Your task to perform on an android device: What's the weather? Image 0: 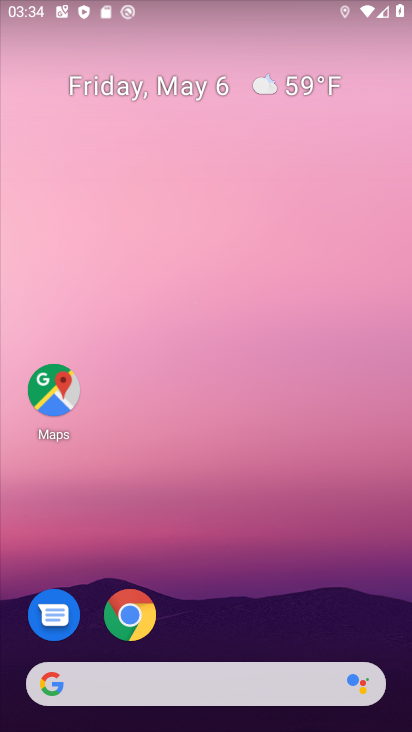
Step 0: drag from (324, 588) to (79, 60)
Your task to perform on an android device: What's the weather? Image 1: 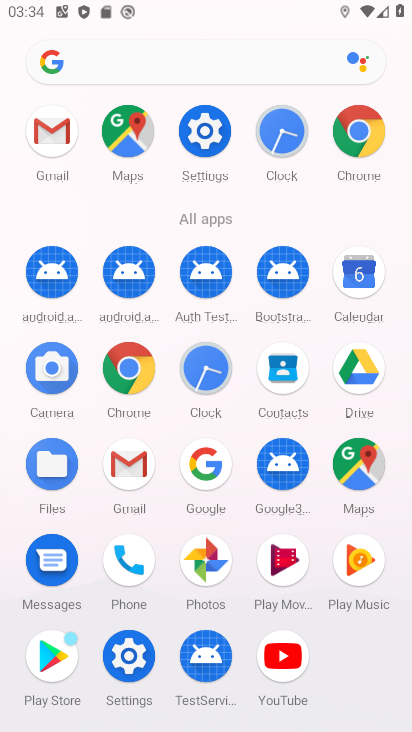
Step 1: press home button
Your task to perform on an android device: What's the weather? Image 2: 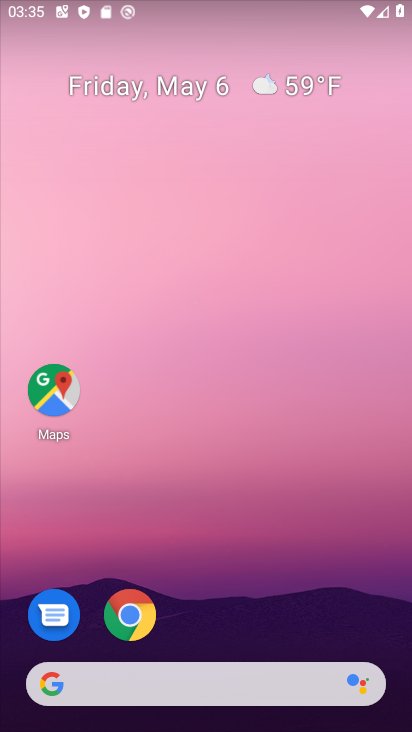
Step 2: drag from (15, 219) to (401, 370)
Your task to perform on an android device: What's the weather? Image 3: 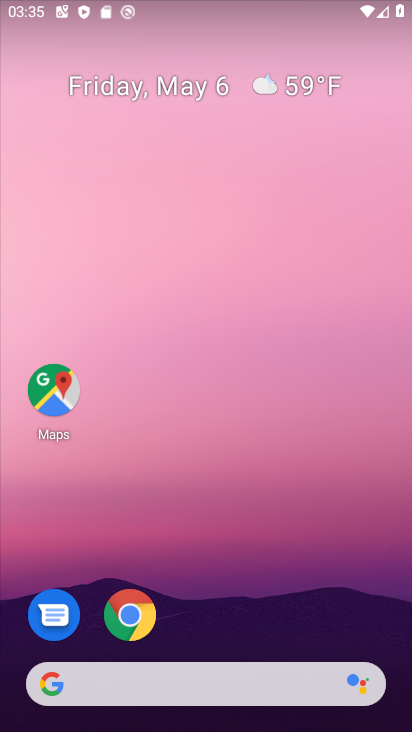
Step 3: drag from (12, 252) to (371, 309)
Your task to perform on an android device: What's the weather? Image 4: 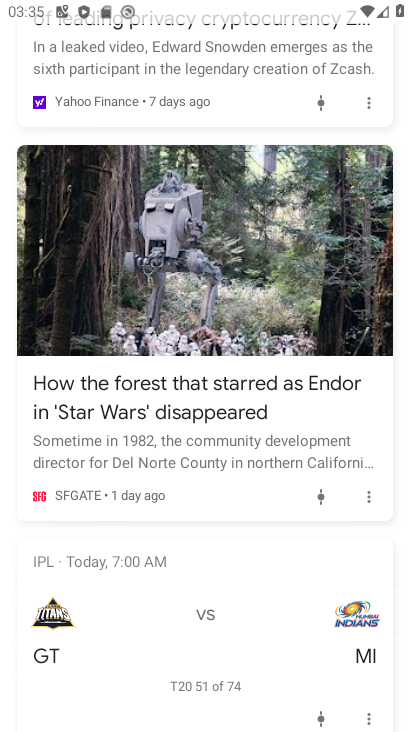
Step 4: drag from (34, 268) to (395, 421)
Your task to perform on an android device: What's the weather? Image 5: 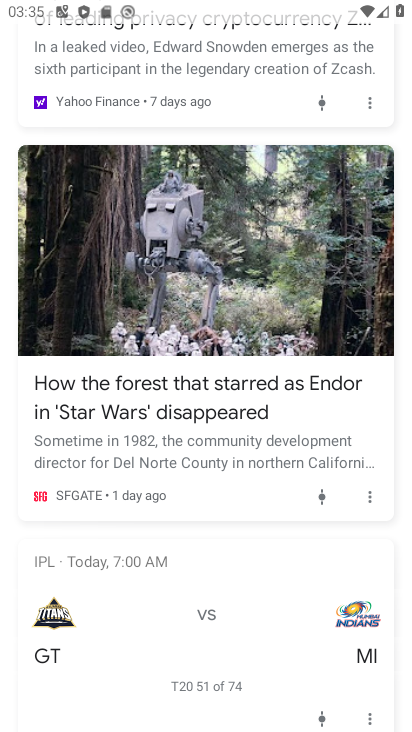
Step 5: drag from (221, 262) to (273, 606)
Your task to perform on an android device: What's the weather? Image 6: 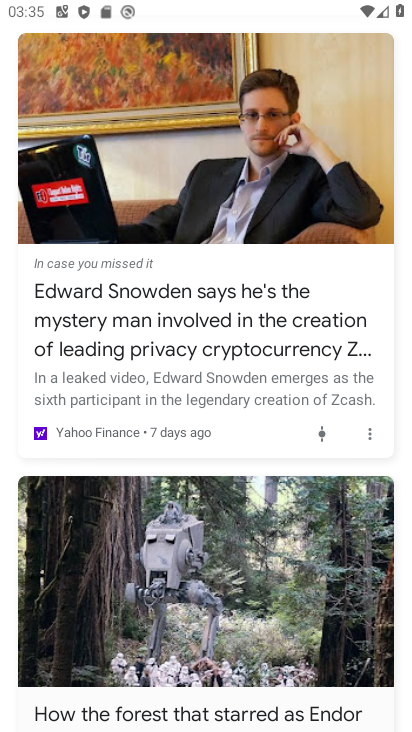
Step 6: drag from (176, 308) to (182, 607)
Your task to perform on an android device: What's the weather? Image 7: 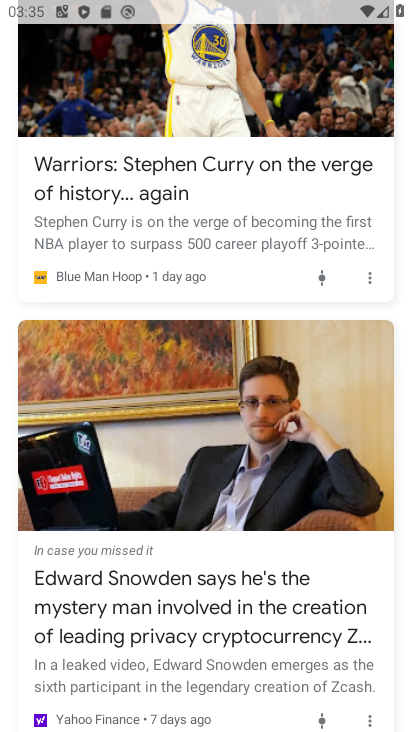
Step 7: drag from (194, 307) to (214, 672)
Your task to perform on an android device: What's the weather? Image 8: 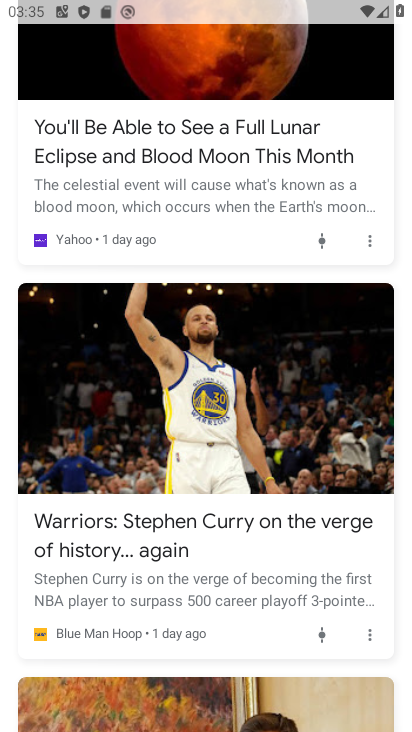
Step 8: drag from (189, 322) to (235, 677)
Your task to perform on an android device: What's the weather? Image 9: 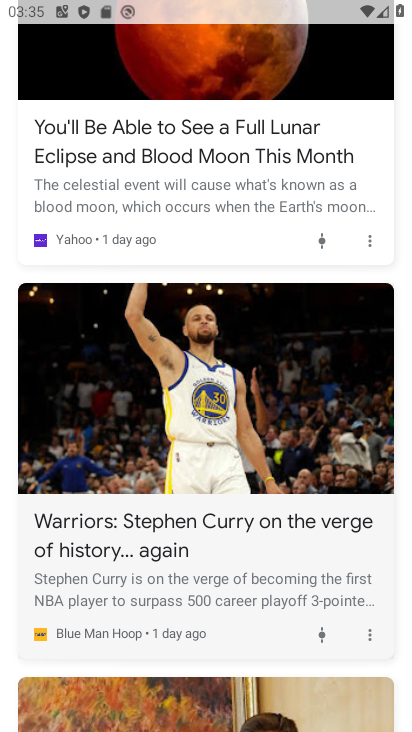
Step 9: drag from (229, 416) to (264, 724)
Your task to perform on an android device: What's the weather? Image 10: 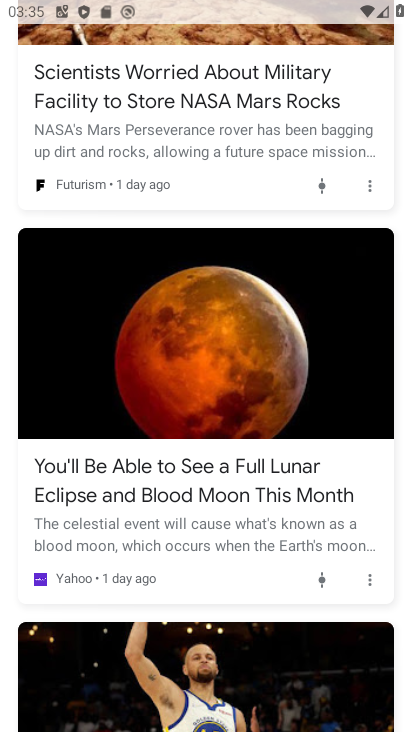
Step 10: drag from (212, 205) to (294, 439)
Your task to perform on an android device: What's the weather? Image 11: 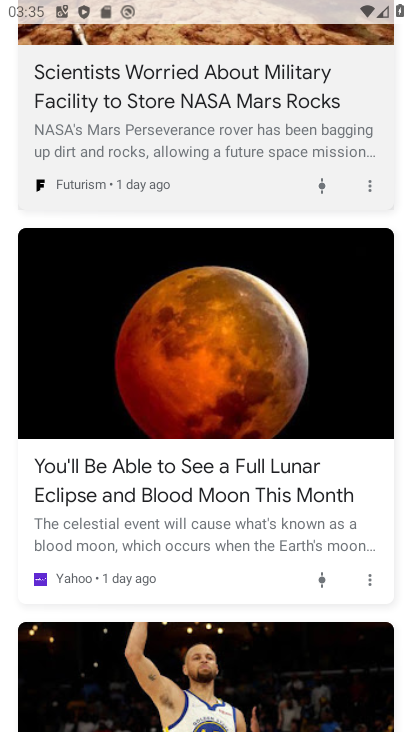
Step 11: drag from (259, 225) to (208, 628)
Your task to perform on an android device: What's the weather? Image 12: 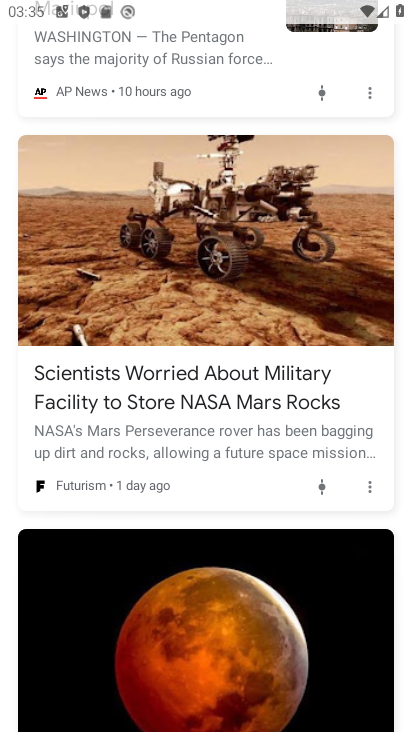
Step 12: drag from (29, 174) to (132, 413)
Your task to perform on an android device: What's the weather? Image 13: 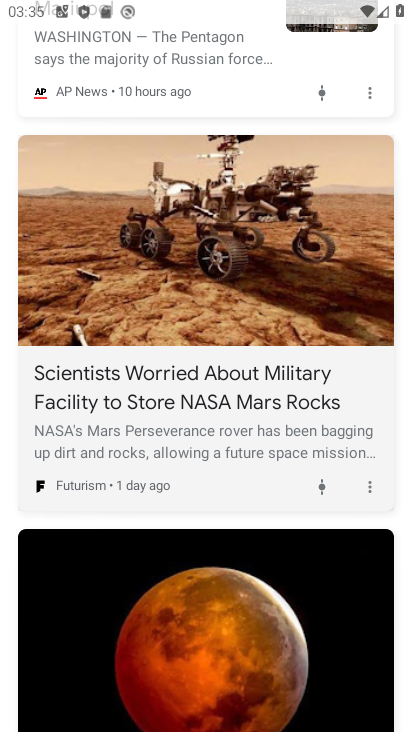
Step 13: drag from (188, 137) to (171, 491)
Your task to perform on an android device: What's the weather? Image 14: 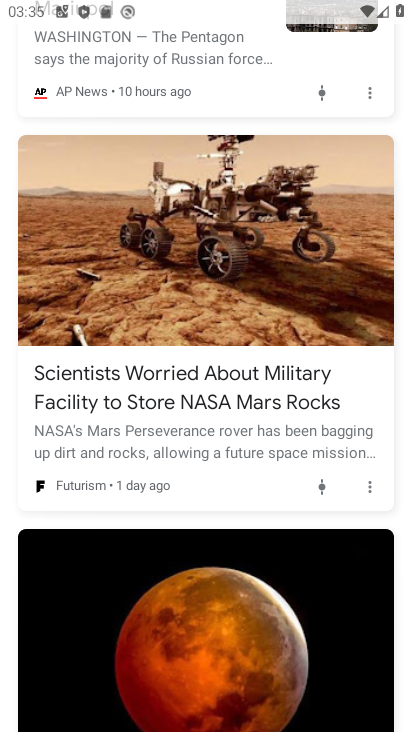
Step 14: drag from (104, 246) to (141, 586)
Your task to perform on an android device: What's the weather? Image 15: 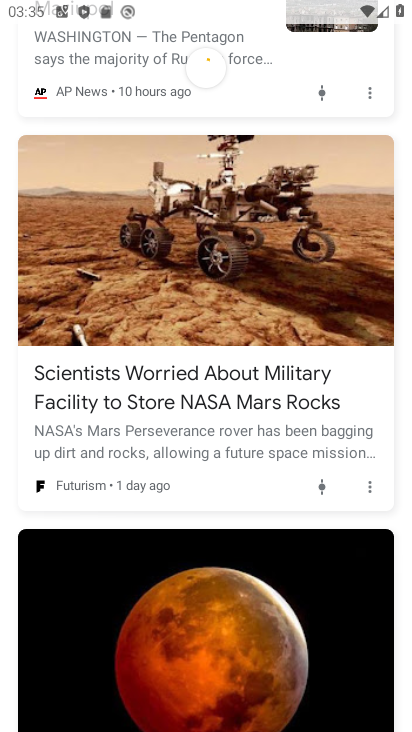
Step 15: drag from (143, 259) to (239, 513)
Your task to perform on an android device: What's the weather? Image 16: 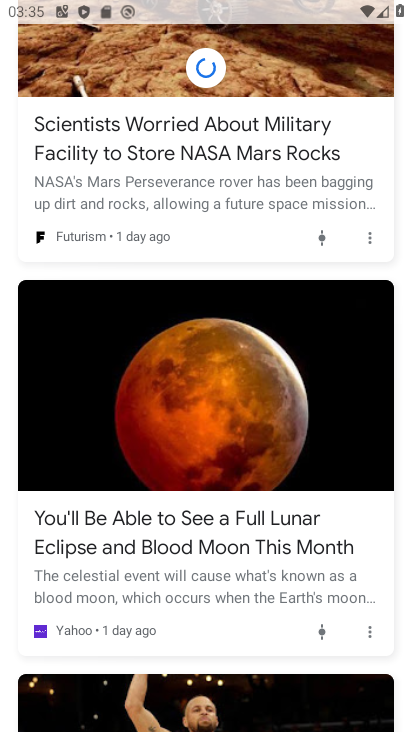
Step 16: drag from (217, 256) to (213, 635)
Your task to perform on an android device: What's the weather? Image 17: 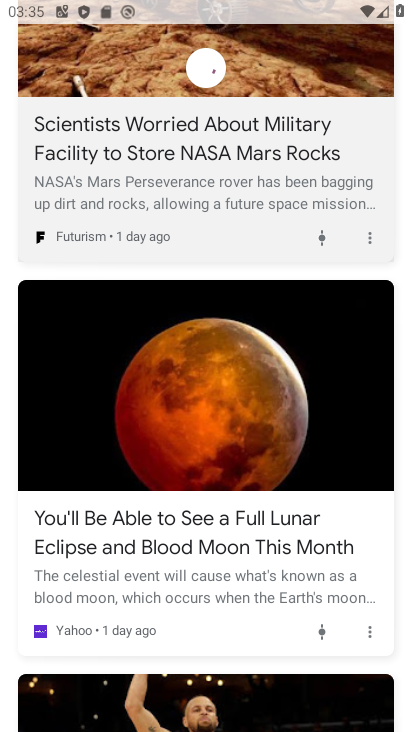
Step 17: drag from (203, 121) to (160, 531)
Your task to perform on an android device: What's the weather? Image 18: 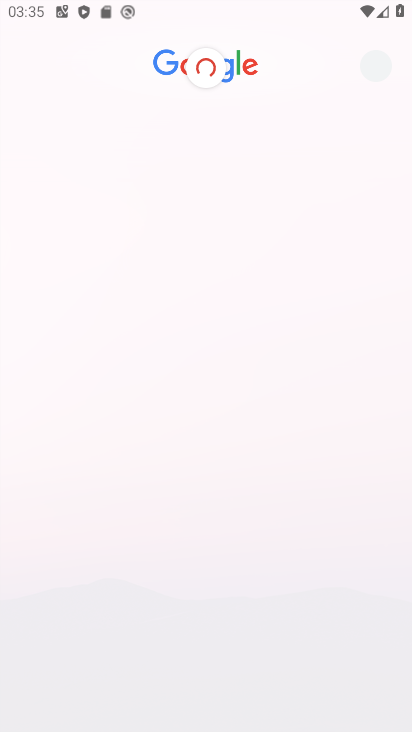
Step 18: drag from (157, 118) to (189, 602)
Your task to perform on an android device: What's the weather? Image 19: 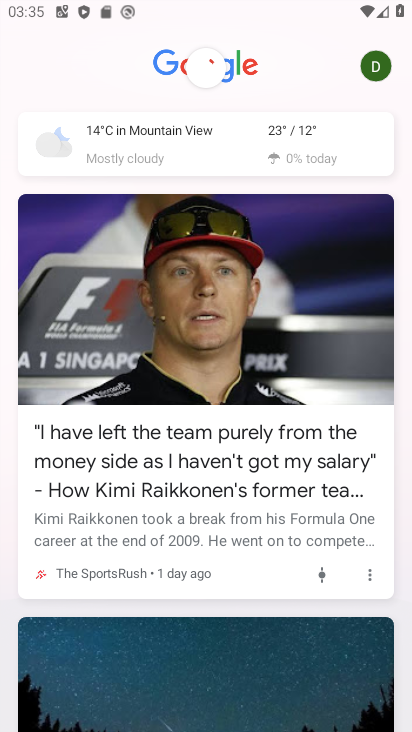
Step 19: click (210, 131)
Your task to perform on an android device: What's the weather? Image 20: 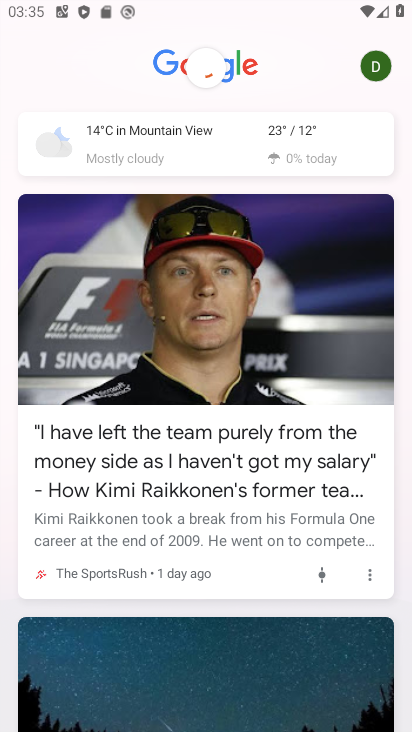
Step 20: click (210, 131)
Your task to perform on an android device: What's the weather? Image 21: 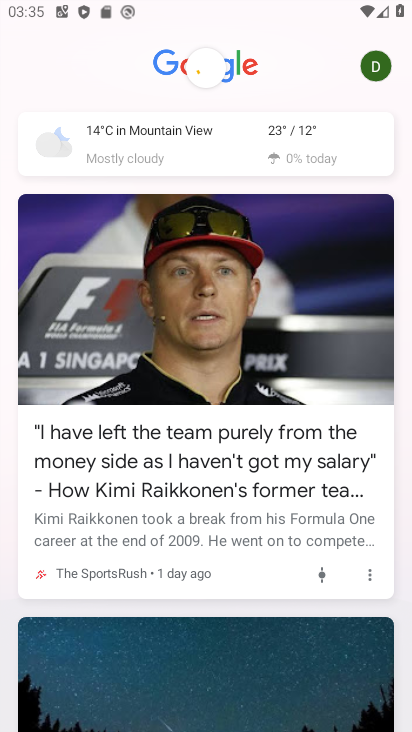
Step 21: click (208, 131)
Your task to perform on an android device: What's the weather? Image 22: 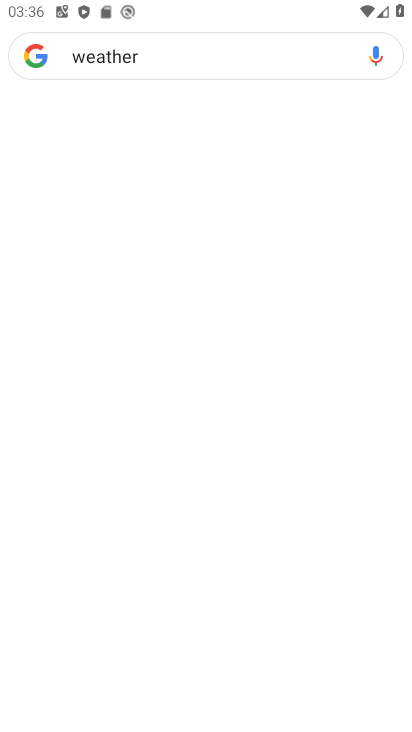
Step 22: click (208, 131)
Your task to perform on an android device: What's the weather? Image 23: 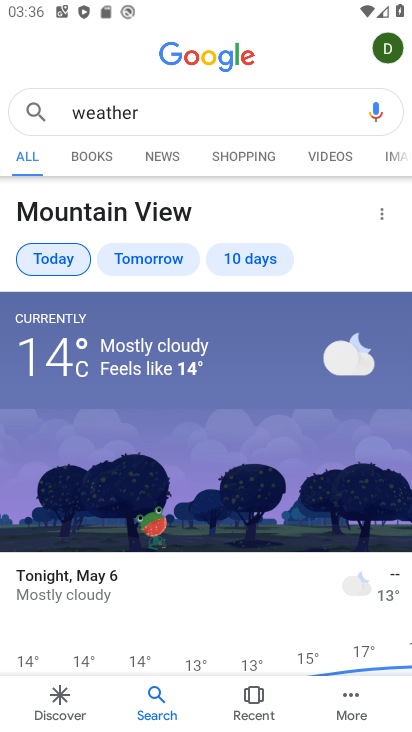
Step 23: task complete